Your task to perform on an android device: Open Maps and search for coffee Image 0: 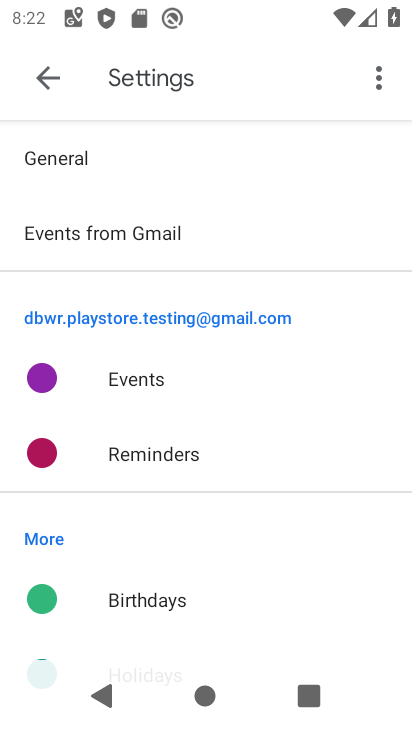
Step 0: press home button
Your task to perform on an android device: Open Maps and search for coffee Image 1: 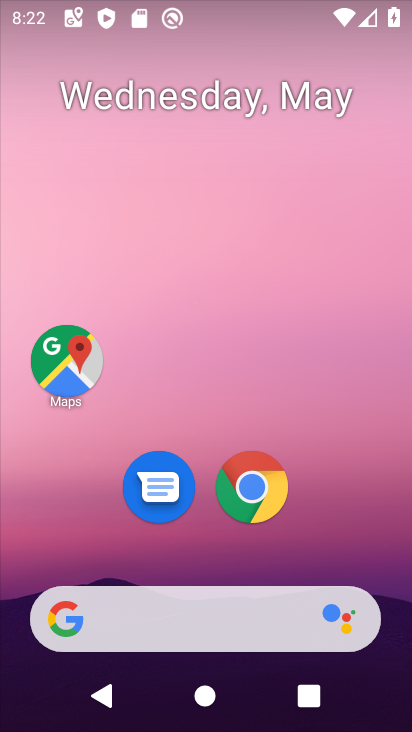
Step 1: click (59, 361)
Your task to perform on an android device: Open Maps and search for coffee Image 2: 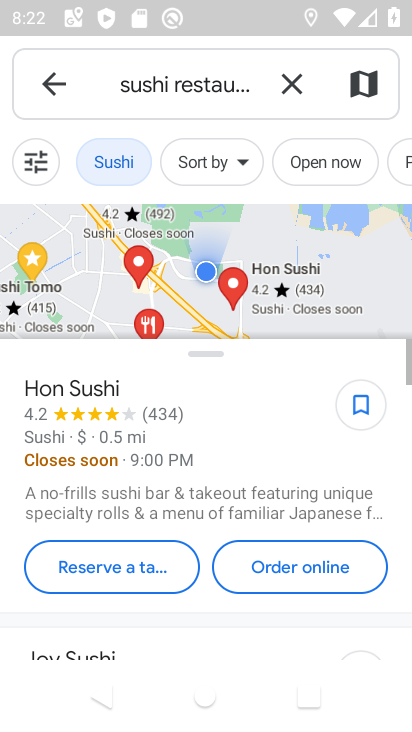
Step 2: click (289, 77)
Your task to perform on an android device: Open Maps and search for coffee Image 3: 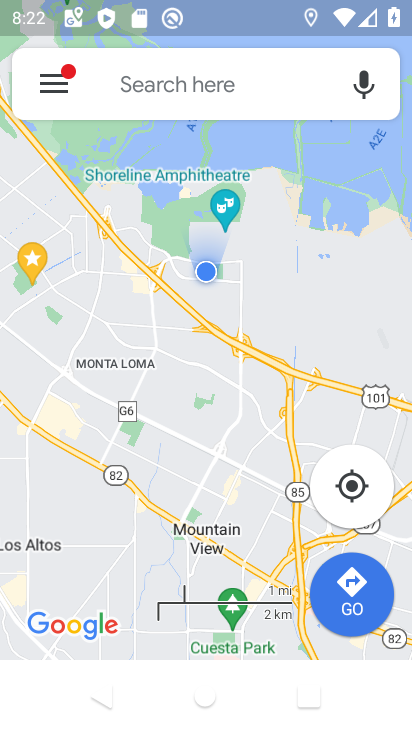
Step 3: click (194, 80)
Your task to perform on an android device: Open Maps and search for coffee Image 4: 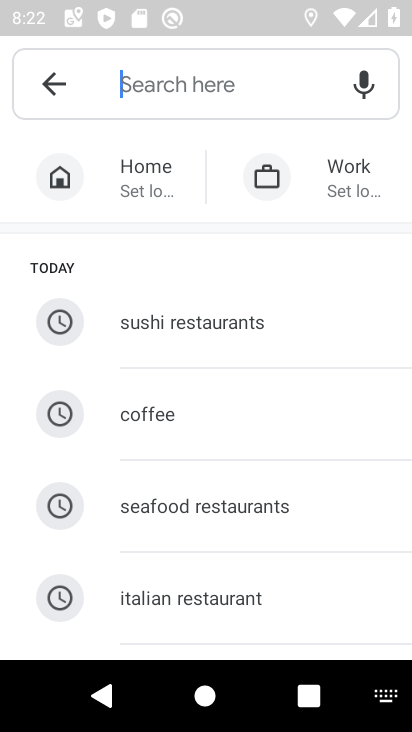
Step 4: click (156, 409)
Your task to perform on an android device: Open Maps and search for coffee Image 5: 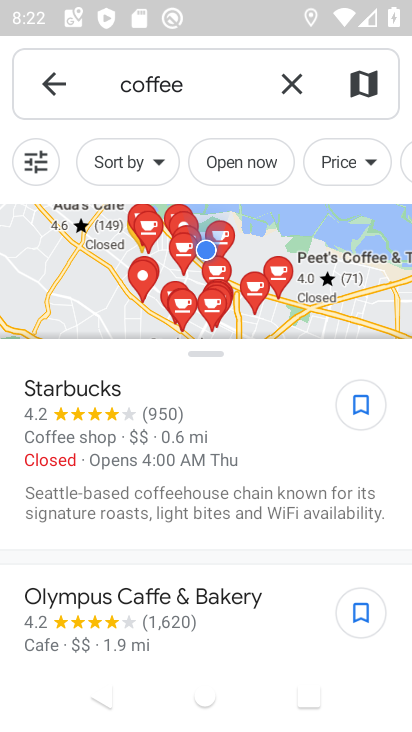
Step 5: task complete